Your task to perform on an android device: turn off sleep mode Image 0: 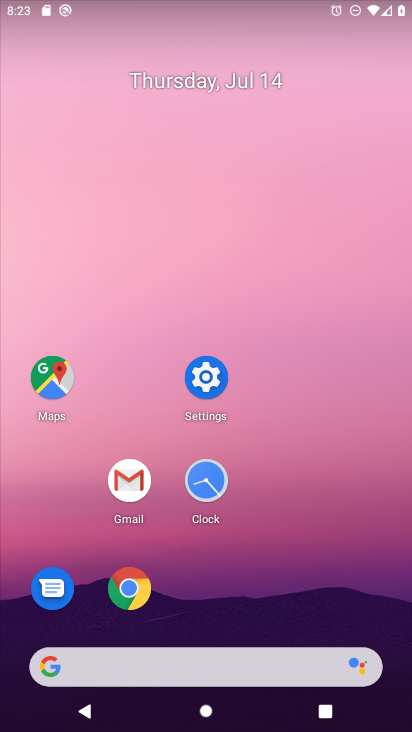
Step 0: click (212, 396)
Your task to perform on an android device: turn off sleep mode Image 1: 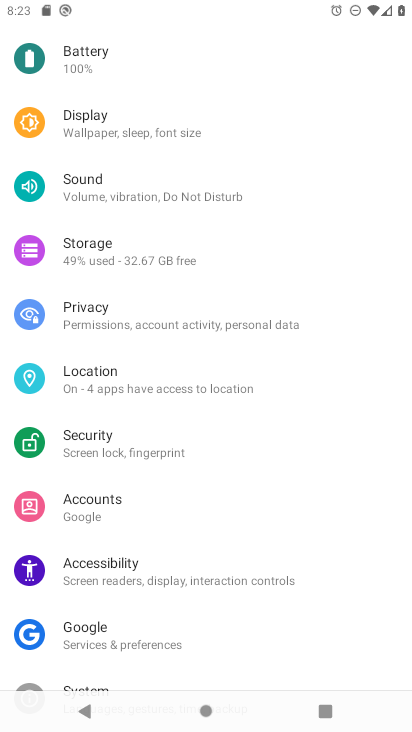
Step 1: click (81, 115)
Your task to perform on an android device: turn off sleep mode Image 2: 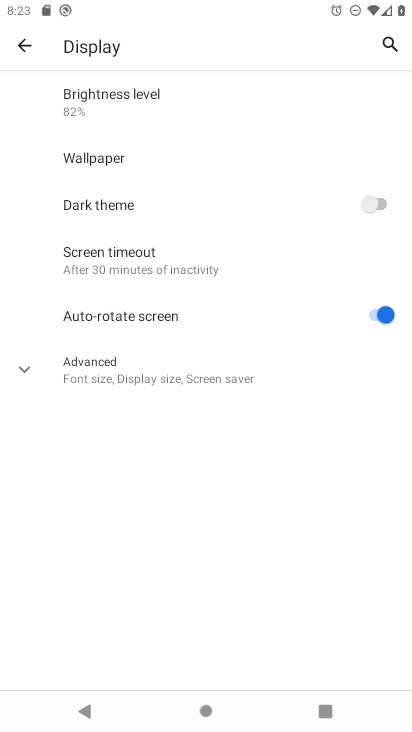
Step 2: click (33, 370)
Your task to perform on an android device: turn off sleep mode Image 3: 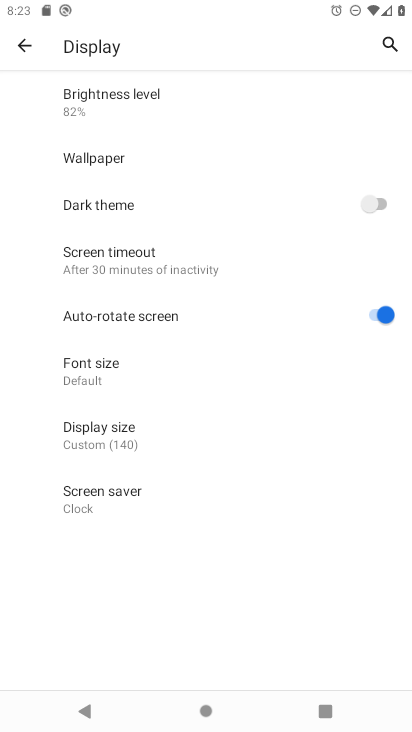
Step 3: click (144, 256)
Your task to perform on an android device: turn off sleep mode Image 4: 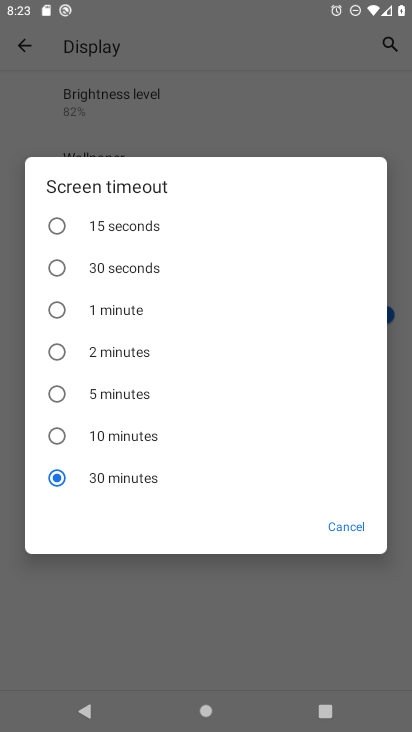
Step 4: task complete